Your task to perform on an android device: Check the weather Image 0: 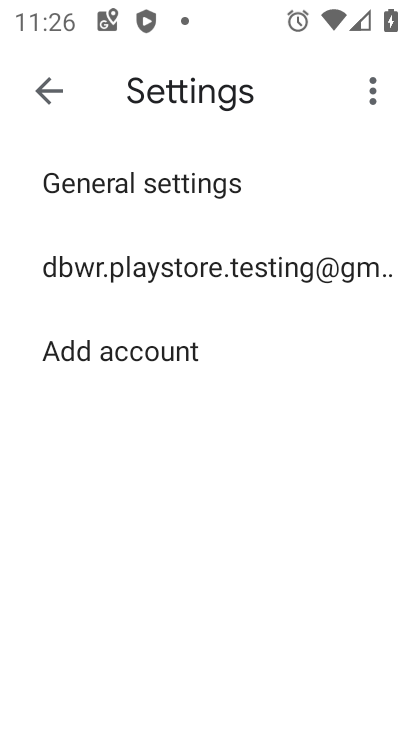
Step 0: press home button
Your task to perform on an android device: Check the weather Image 1: 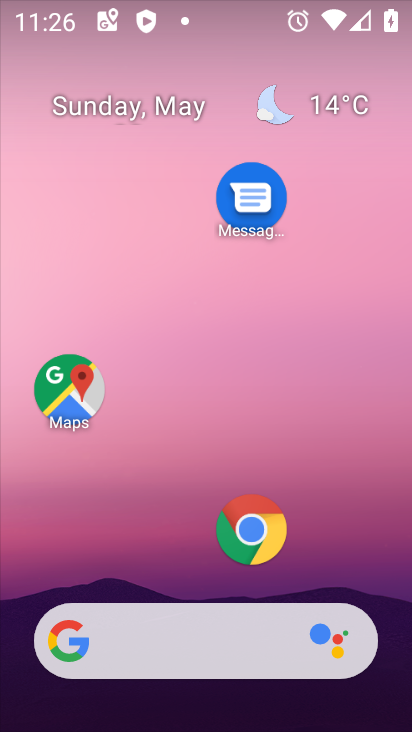
Step 1: drag from (181, 547) to (279, 55)
Your task to perform on an android device: Check the weather Image 2: 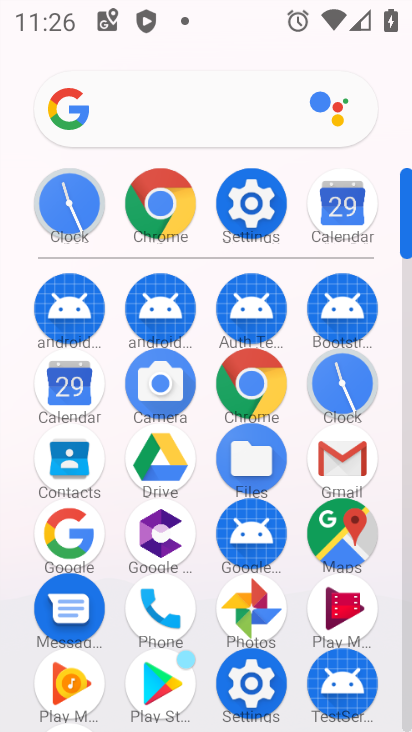
Step 2: press home button
Your task to perform on an android device: Check the weather Image 3: 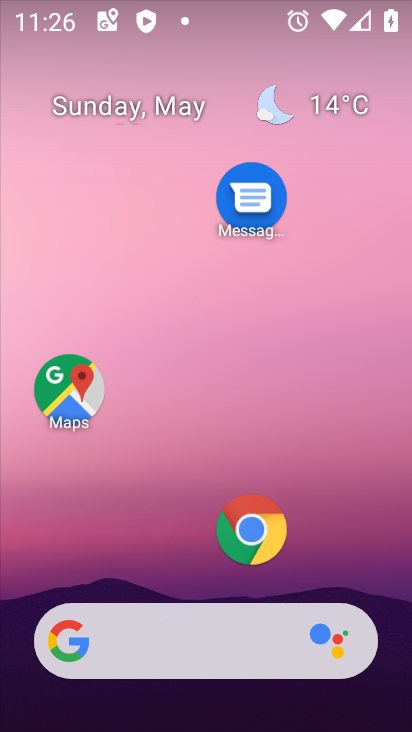
Step 3: click (292, 131)
Your task to perform on an android device: Check the weather Image 4: 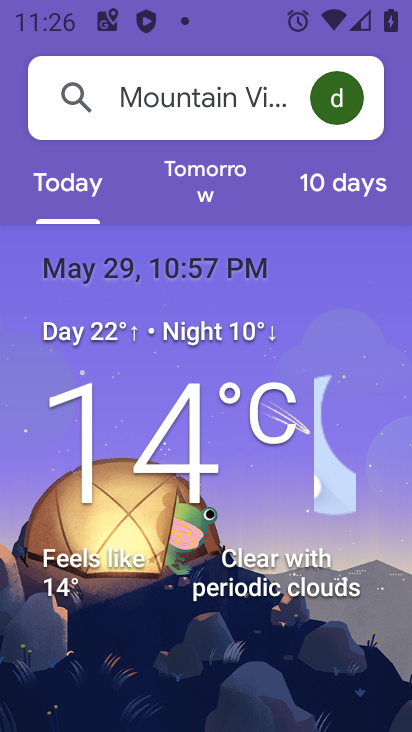
Step 4: task complete